Your task to perform on an android device: delete the emails in spam in the gmail app Image 0: 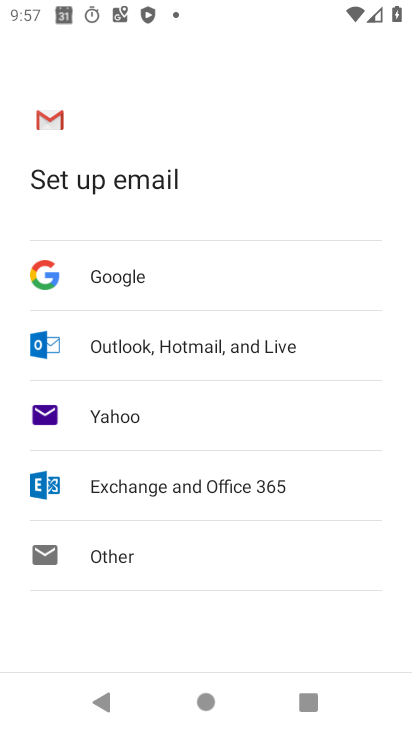
Step 0: press home button
Your task to perform on an android device: delete the emails in spam in the gmail app Image 1: 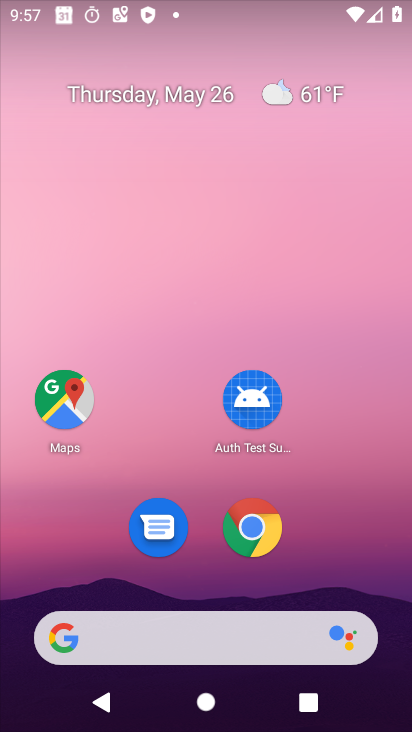
Step 1: drag from (360, 479) to (355, 49)
Your task to perform on an android device: delete the emails in spam in the gmail app Image 2: 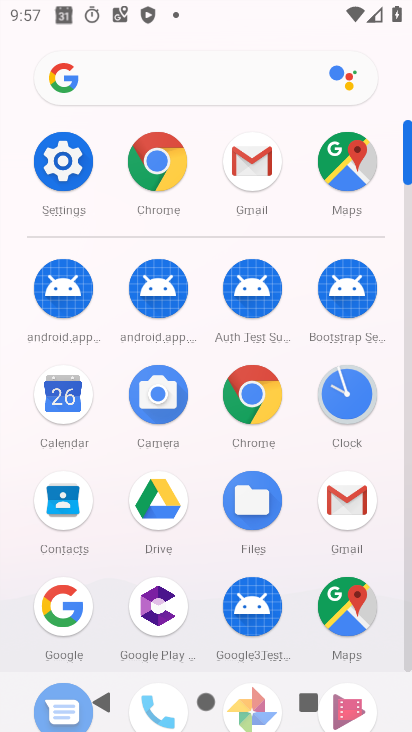
Step 2: click (270, 175)
Your task to perform on an android device: delete the emails in spam in the gmail app Image 3: 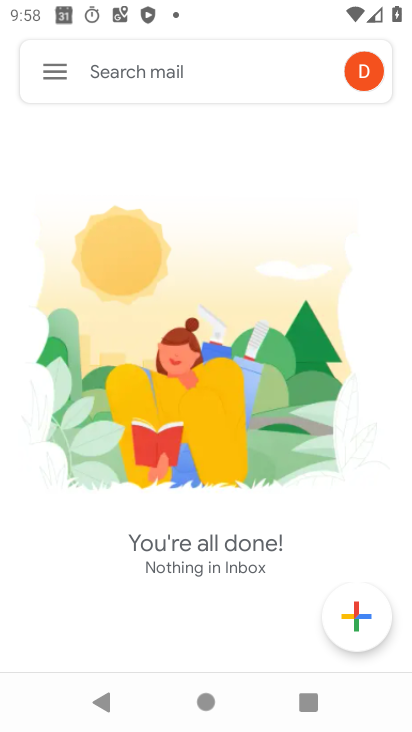
Step 3: click (68, 85)
Your task to perform on an android device: delete the emails in spam in the gmail app Image 4: 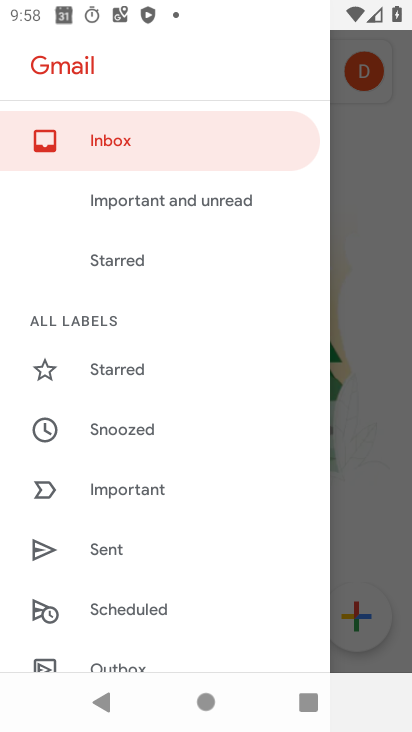
Step 4: drag from (152, 600) to (202, 244)
Your task to perform on an android device: delete the emails in spam in the gmail app Image 5: 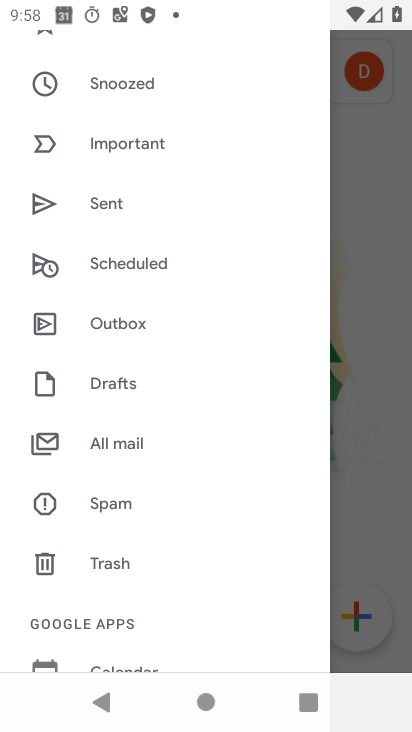
Step 5: drag from (184, 275) to (206, 591)
Your task to perform on an android device: delete the emails in spam in the gmail app Image 6: 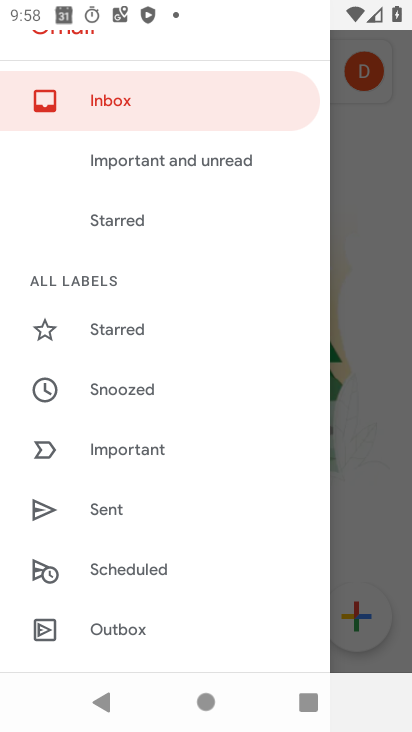
Step 6: drag from (145, 621) to (126, 253)
Your task to perform on an android device: delete the emails in spam in the gmail app Image 7: 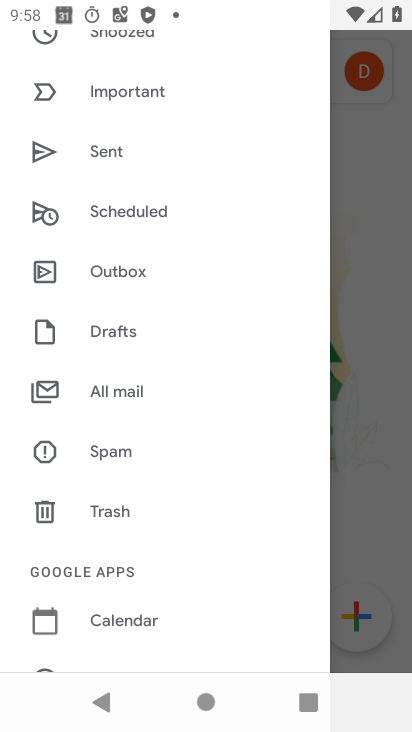
Step 7: click (105, 453)
Your task to perform on an android device: delete the emails in spam in the gmail app Image 8: 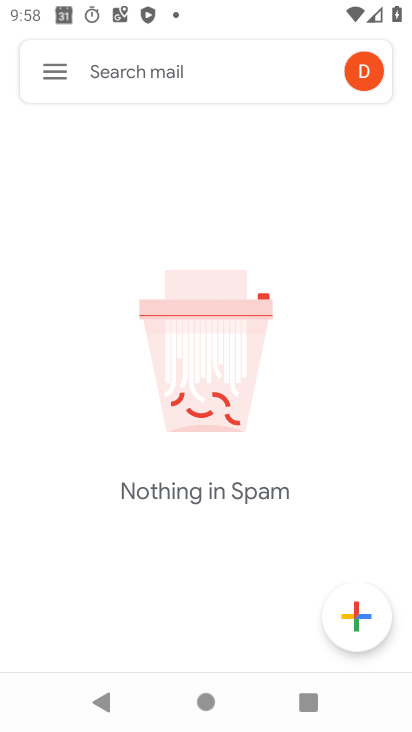
Step 8: task complete